Your task to perform on an android device: uninstall "Pluto TV - Live TV and Movies" Image 0: 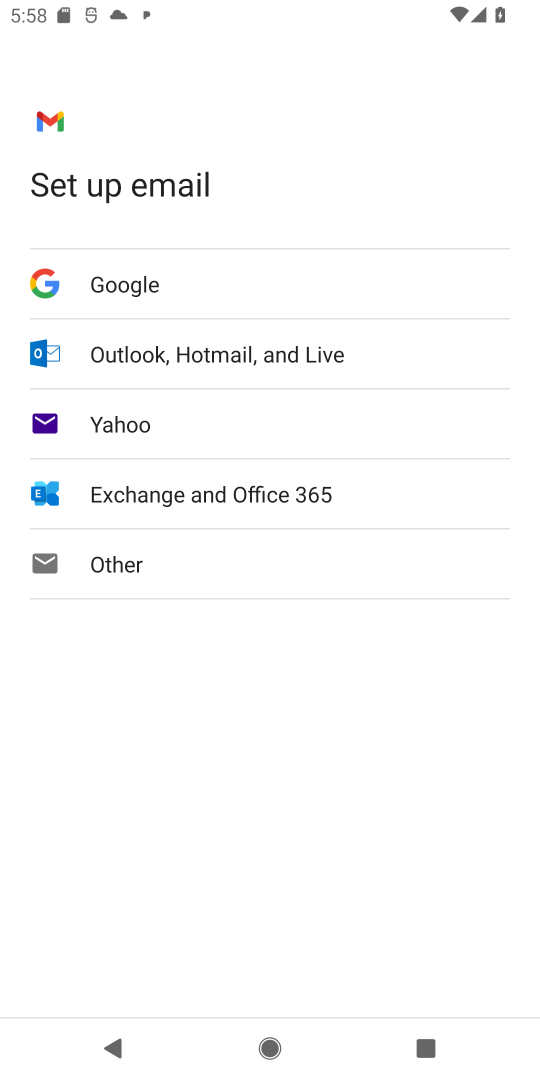
Step 0: press home button
Your task to perform on an android device: uninstall "Pluto TV - Live TV and Movies" Image 1: 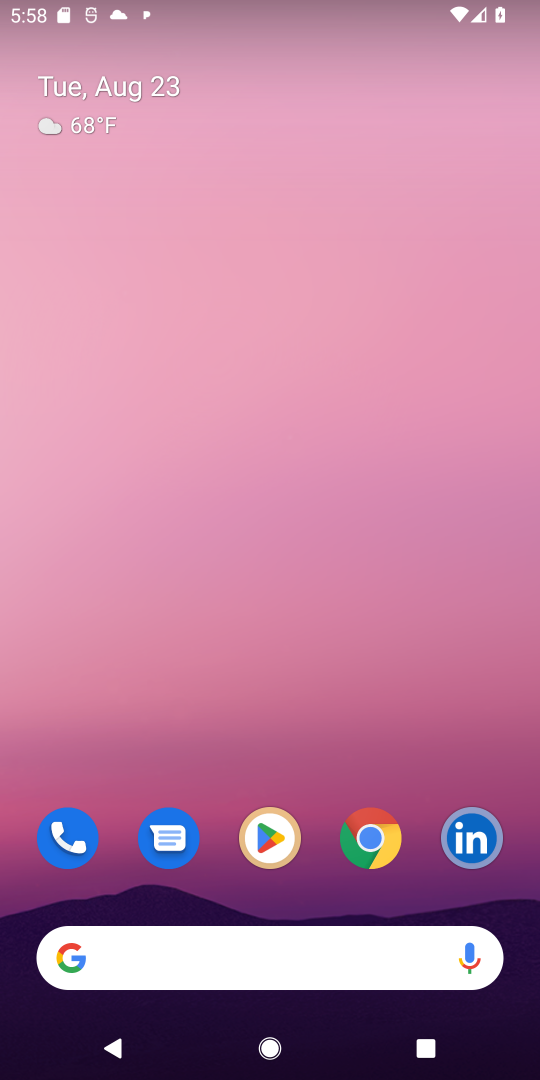
Step 1: click (270, 848)
Your task to perform on an android device: uninstall "Pluto TV - Live TV and Movies" Image 2: 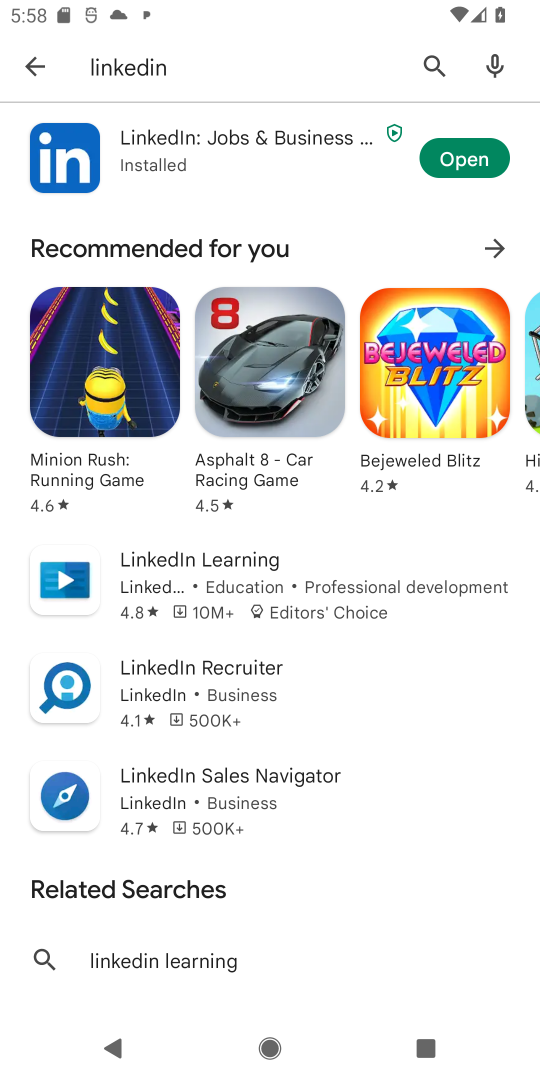
Step 2: click (436, 63)
Your task to perform on an android device: uninstall "Pluto TV - Live TV and Movies" Image 3: 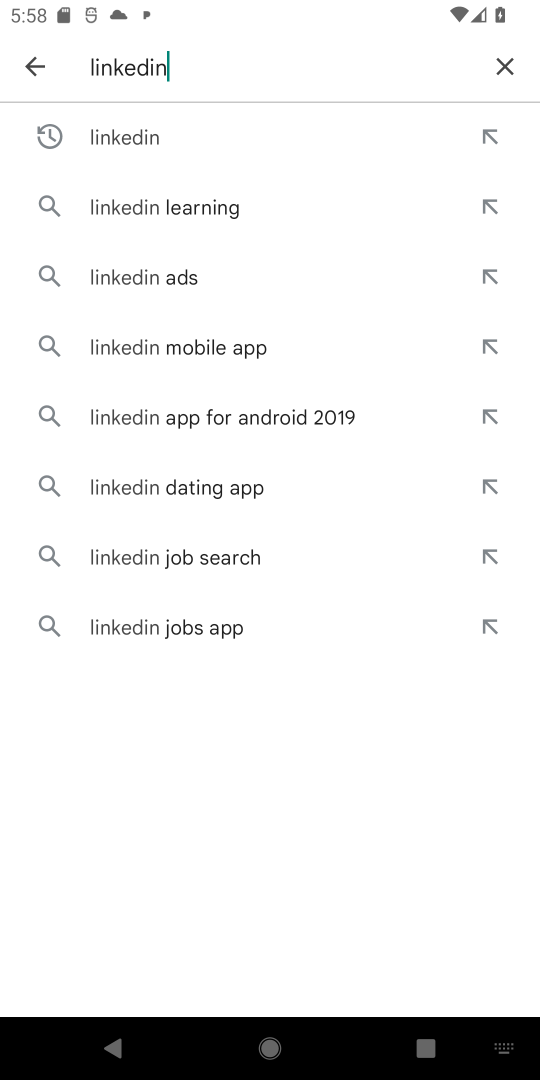
Step 3: click (505, 60)
Your task to perform on an android device: uninstall "Pluto TV - Live TV and Movies" Image 4: 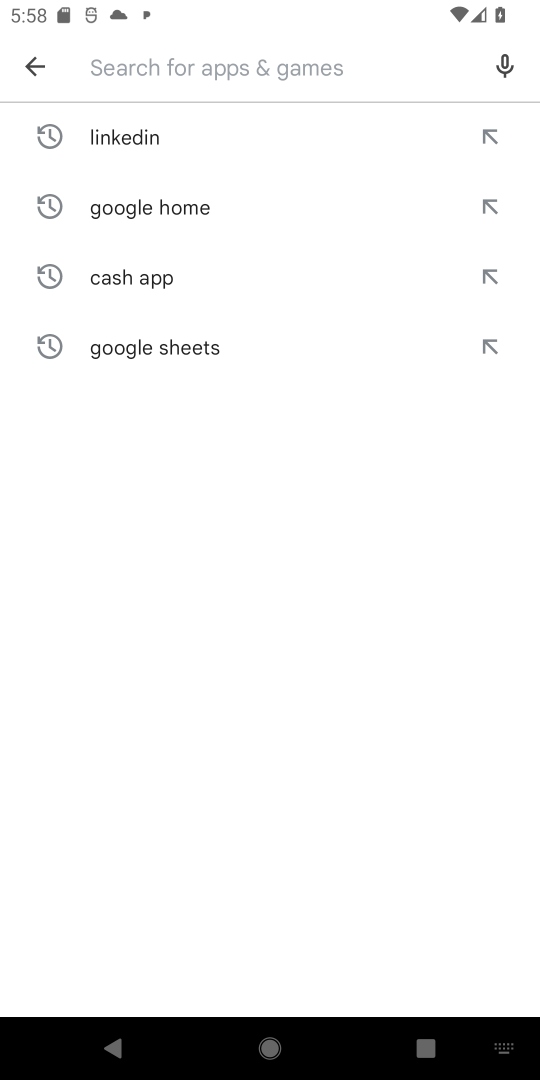
Step 4: type "Pluto TV - Live TV and Movies"
Your task to perform on an android device: uninstall "Pluto TV - Live TV and Movies" Image 5: 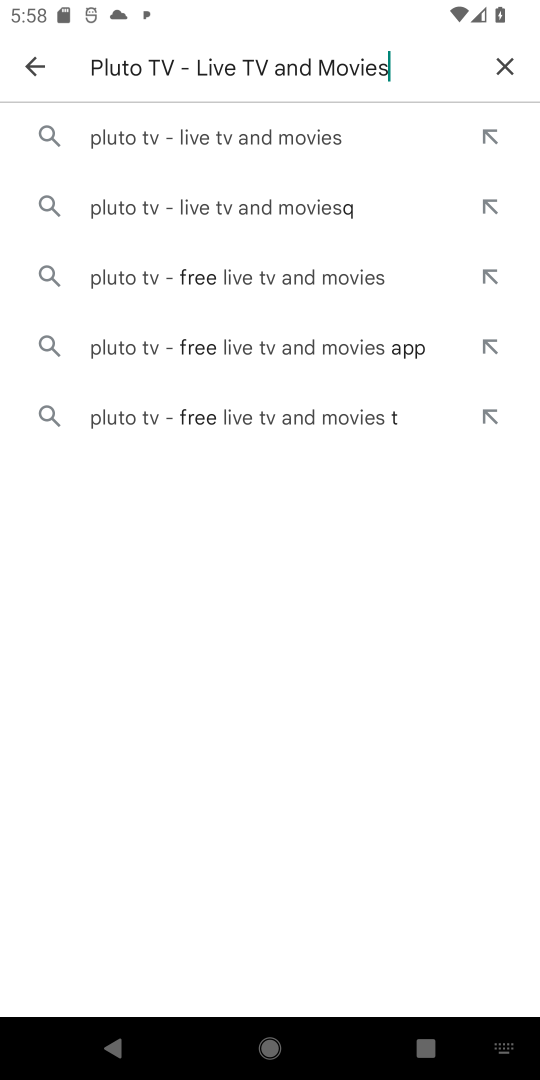
Step 5: click (239, 135)
Your task to perform on an android device: uninstall "Pluto TV - Live TV and Movies" Image 6: 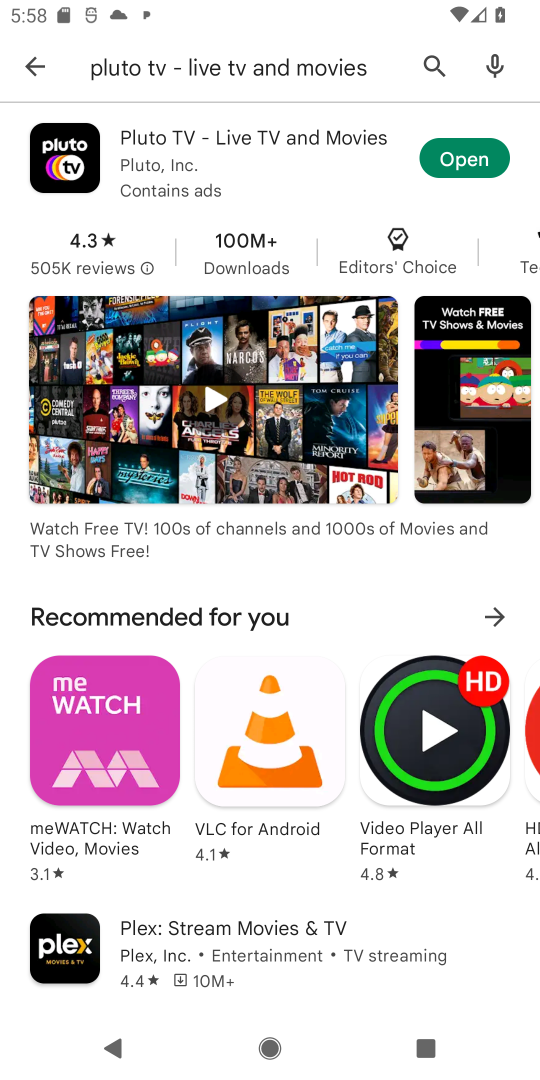
Step 6: click (189, 127)
Your task to perform on an android device: uninstall "Pluto TV - Live TV and Movies" Image 7: 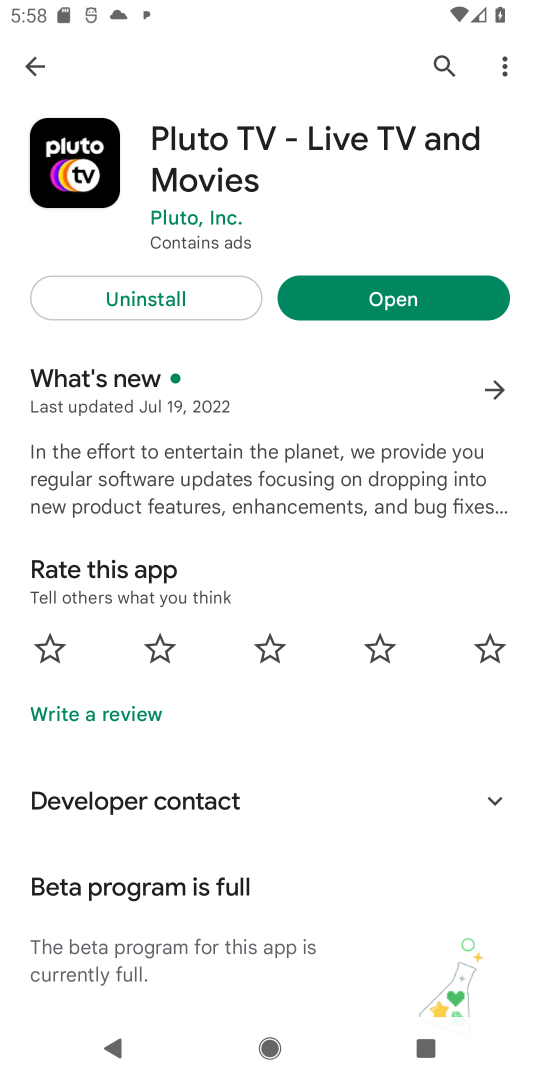
Step 7: click (199, 295)
Your task to perform on an android device: uninstall "Pluto TV - Live TV and Movies" Image 8: 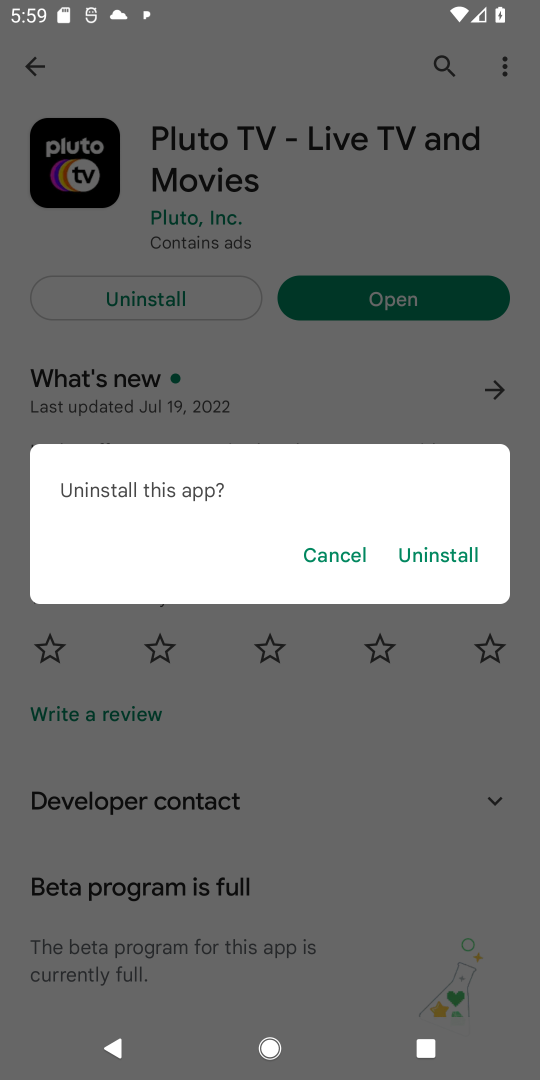
Step 8: click (429, 559)
Your task to perform on an android device: uninstall "Pluto TV - Live TV and Movies" Image 9: 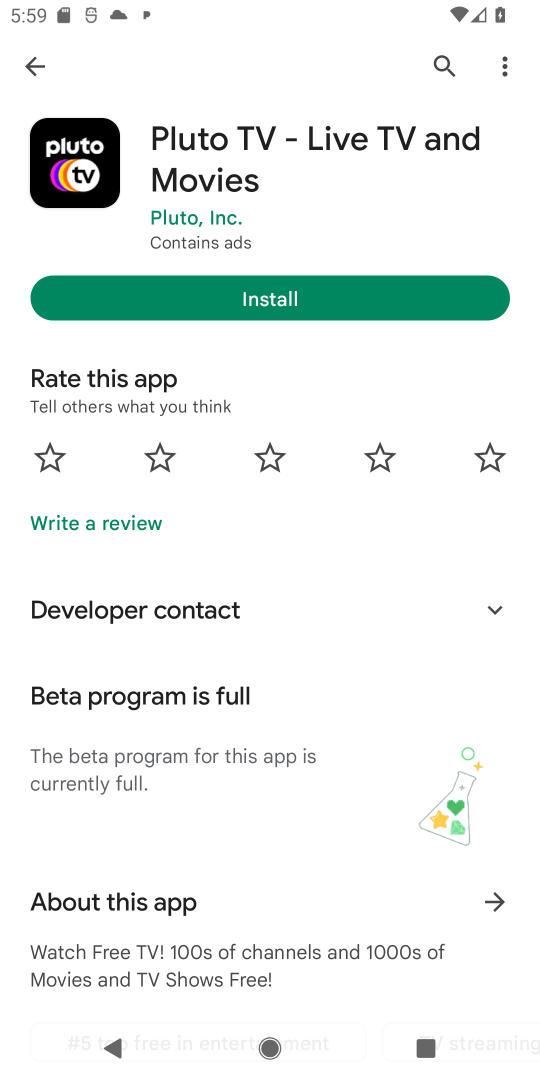
Step 9: task complete